Your task to perform on an android device: Open notification settings Image 0: 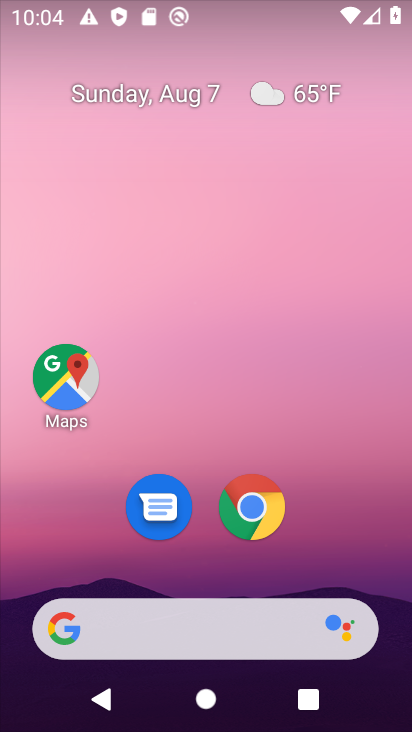
Step 0: drag from (228, 458) to (258, 18)
Your task to perform on an android device: Open notification settings Image 1: 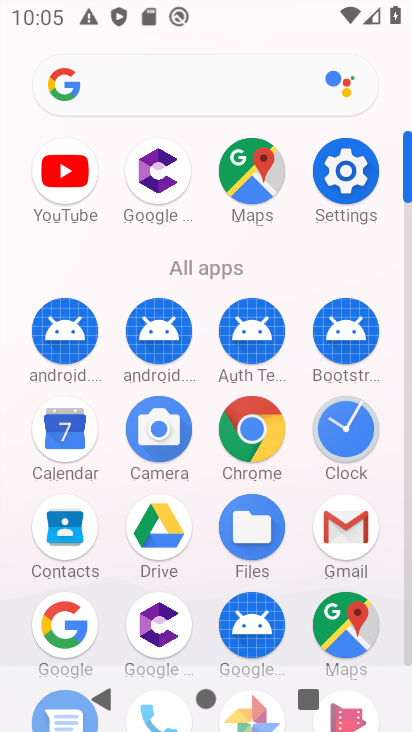
Step 1: click (352, 181)
Your task to perform on an android device: Open notification settings Image 2: 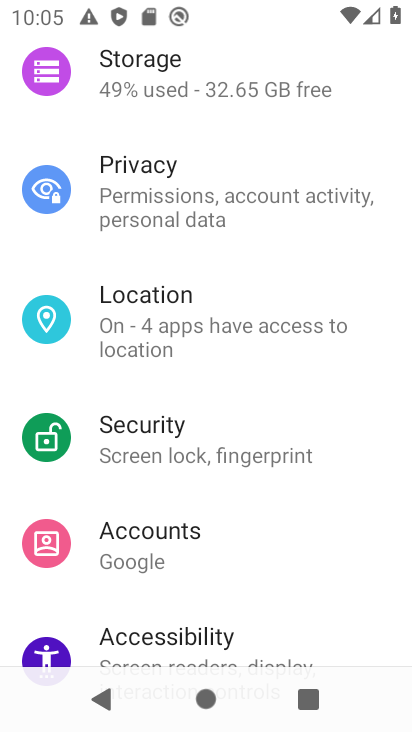
Step 2: task complete